Your task to perform on an android device: What is the recent news? Image 0: 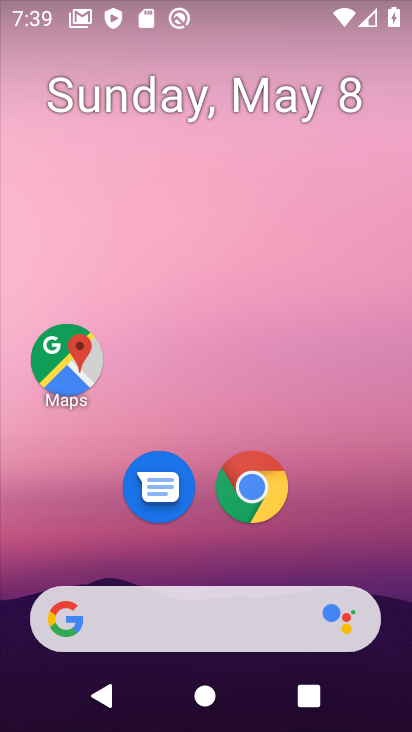
Step 0: click (254, 507)
Your task to perform on an android device: What is the recent news? Image 1: 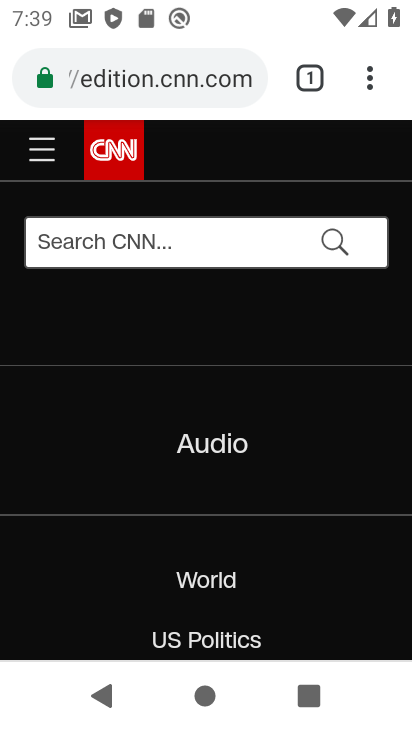
Step 1: click (300, 97)
Your task to perform on an android device: What is the recent news? Image 2: 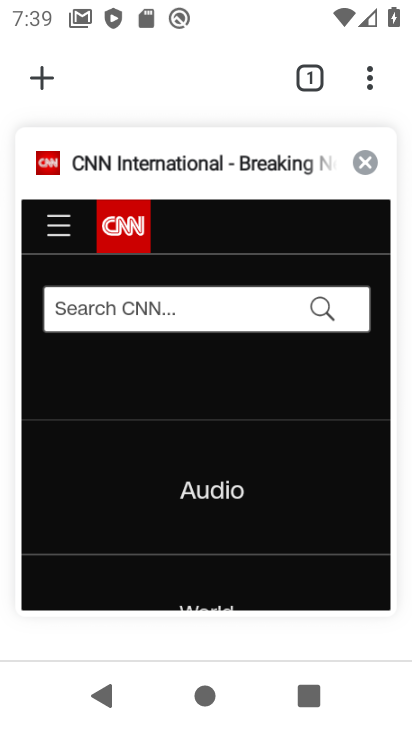
Step 2: click (49, 77)
Your task to perform on an android device: What is the recent news? Image 3: 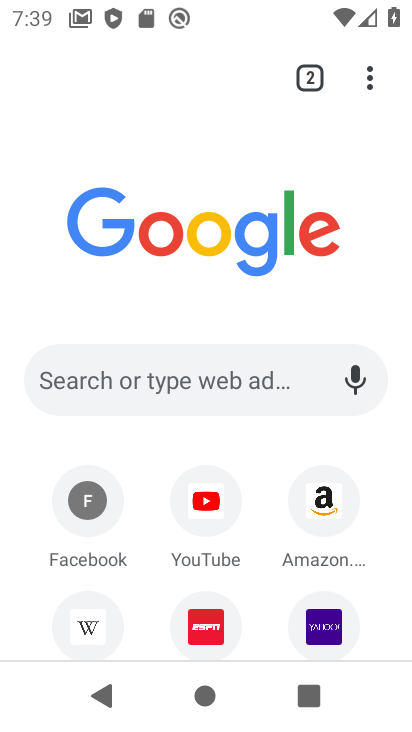
Step 3: task complete